Your task to perform on an android device: open wifi settings Image 0: 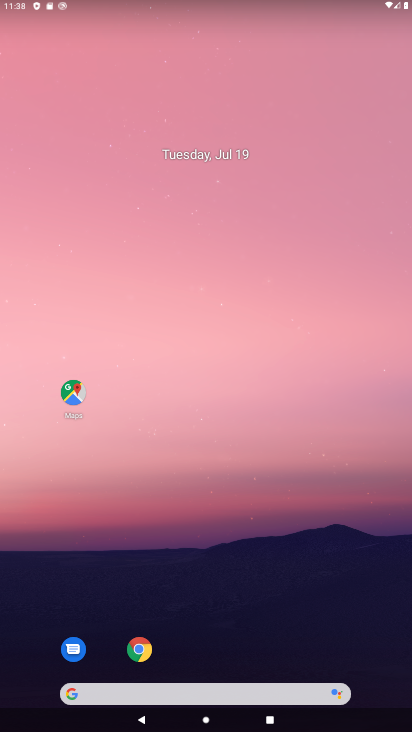
Step 0: drag from (334, 595) to (287, 148)
Your task to perform on an android device: open wifi settings Image 1: 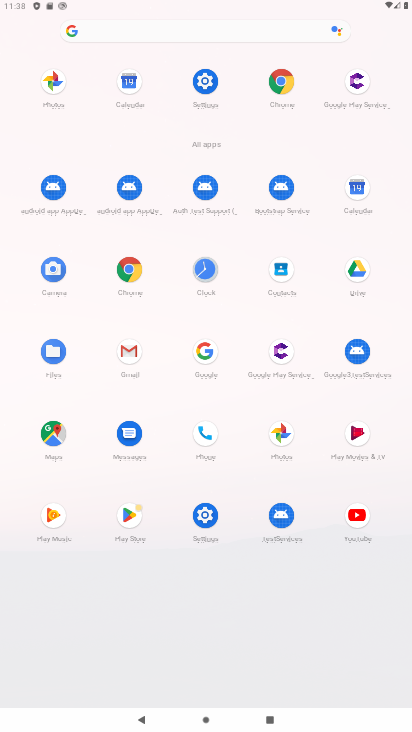
Step 1: click (200, 79)
Your task to perform on an android device: open wifi settings Image 2: 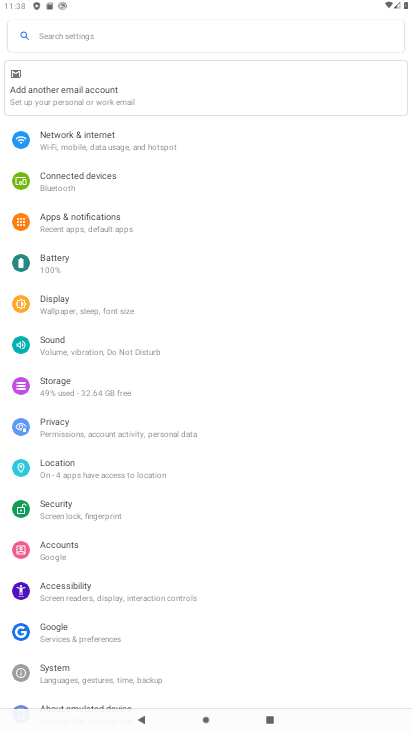
Step 2: click (176, 149)
Your task to perform on an android device: open wifi settings Image 3: 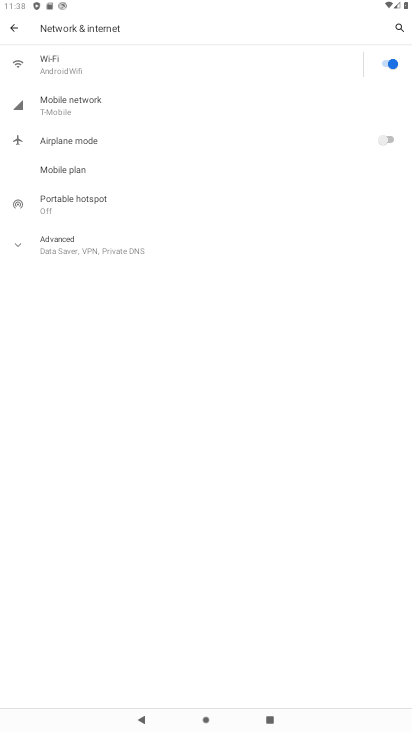
Step 3: click (141, 70)
Your task to perform on an android device: open wifi settings Image 4: 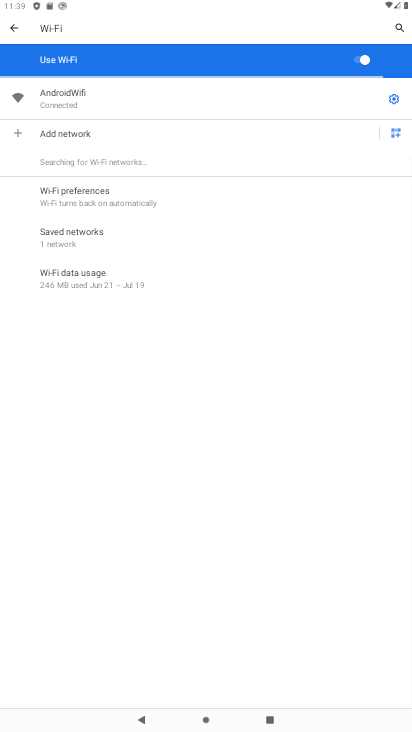
Step 4: task complete